Your task to perform on an android device: Go to Amazon Image 0: 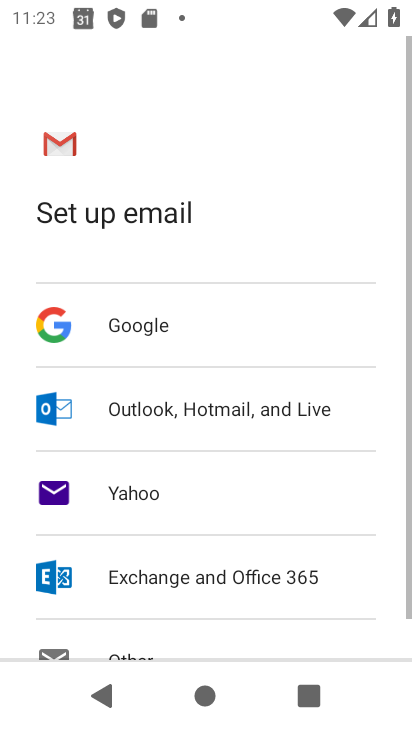
Step 0: press home button
Your task to perform on an android device: Go to Amazon Image 1: 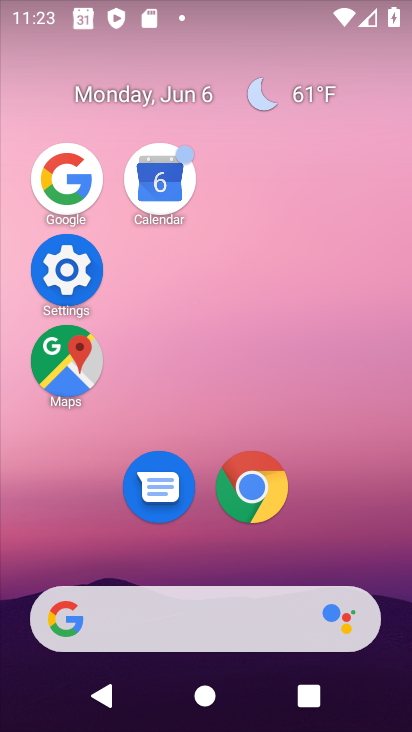
Step 1: click (275, 485)
Your task to perform on an android device: Go to Amazon Image 2: 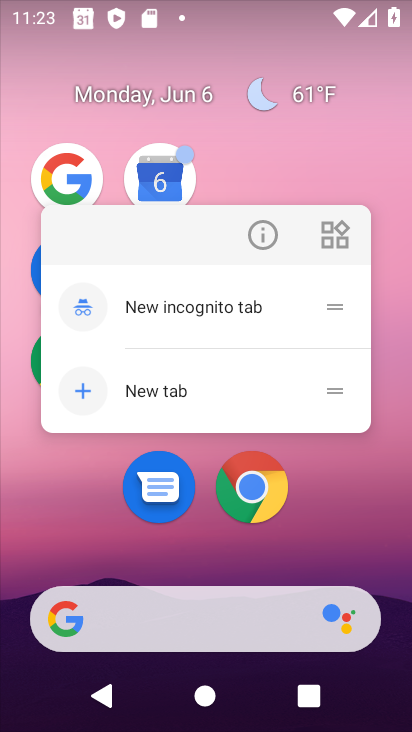
Step 2: click (256, 482)
Your task to perform on an android device: Go to Amazon Image 3: 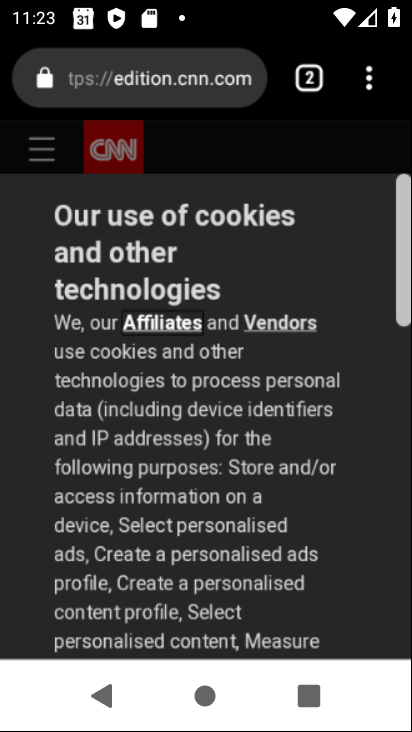
Step 3: click (314, 82)
Your task to perform on an android device: Go to Amazon Image 4: 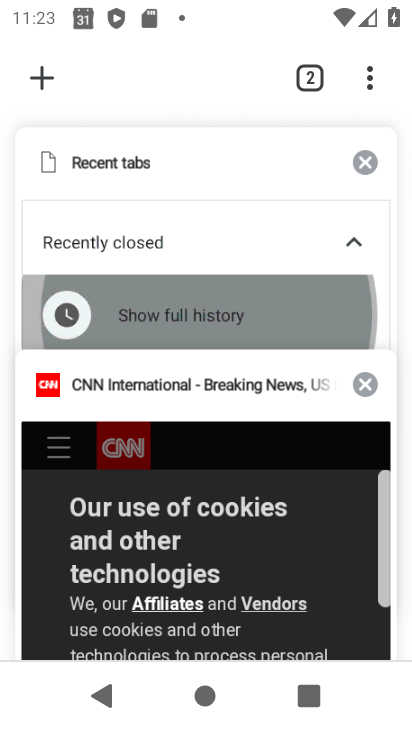
Step 4: click (80, 79)
Your task to perform on an android device: Go to Amazon Image 5: 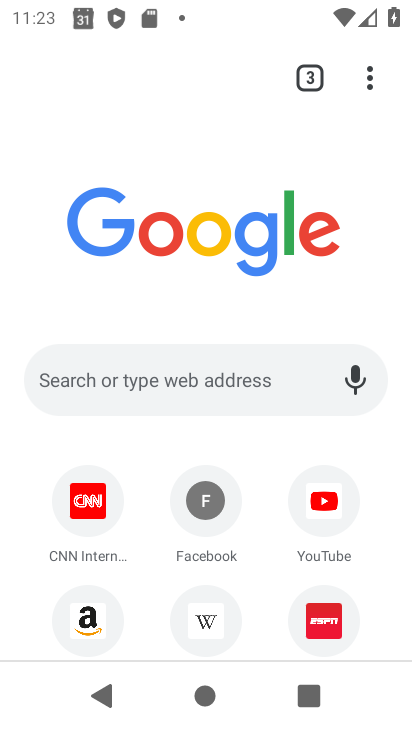
Step 5: click (102, 615)
Your task to perform on an android device: Go to Amazon Image 6: 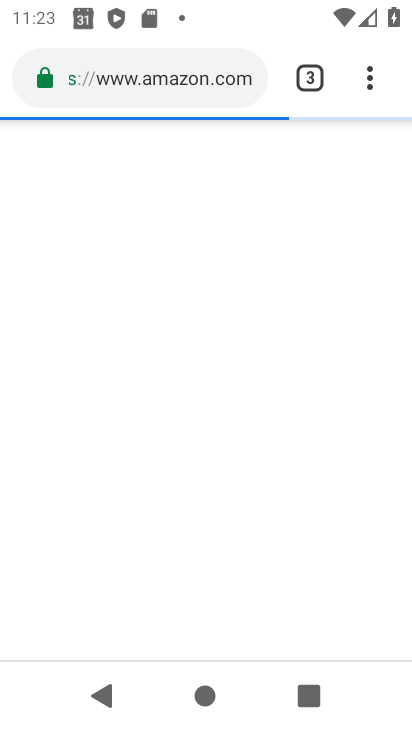
Step 6: task complete